Your task to perform on an android device: show emergency info Image 0: 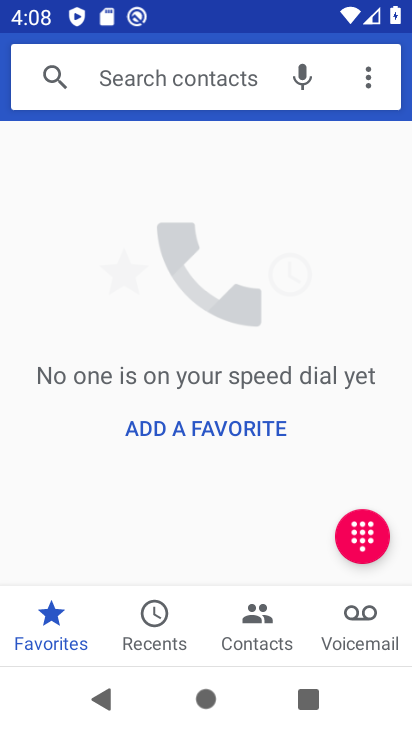
Step 0: press home button
Your task to perform on an android device: show emergency info Image 1: 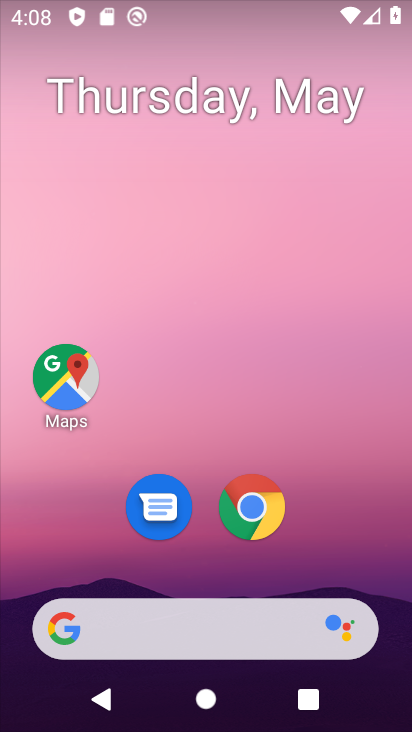
Step 1: drag from (217, 579) to (225, 68)
Your task to perform on an android device: show emergency info Image 2: 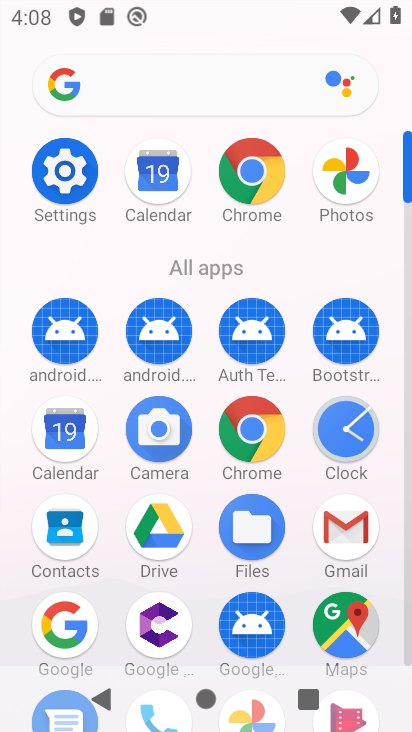
Step 2: click (64, 173)
Your task to perform on an android device: show emergency info Image 3: 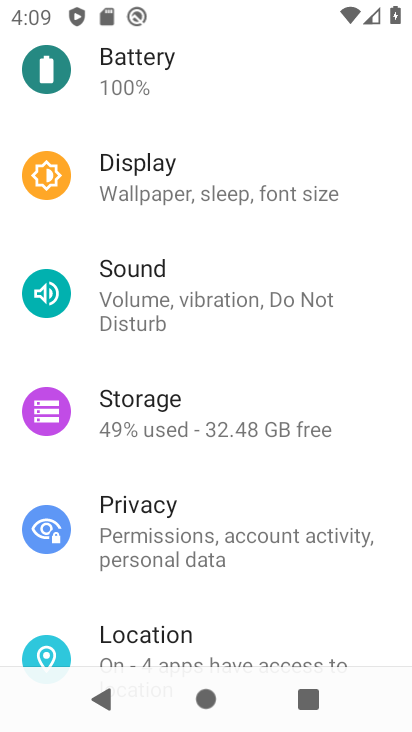
Step 3: drag from (224, 565) to (187, 235)
Your task to perform on an android device: show emergency info Image 4: 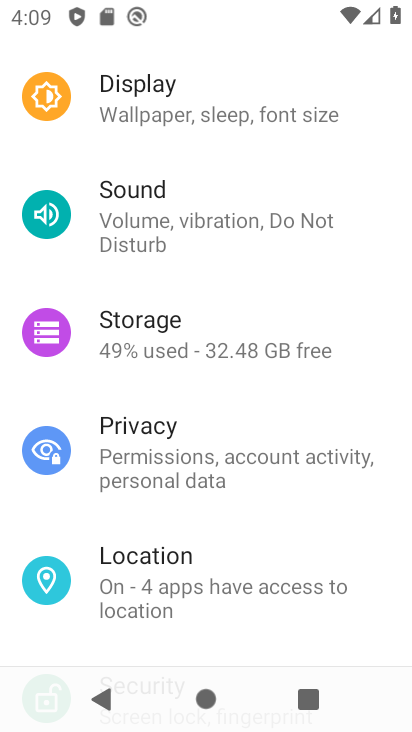
Step 4: drag from (198, 584) to (119, 350)
Your task to perform on an android device: show emergency info Image 5: 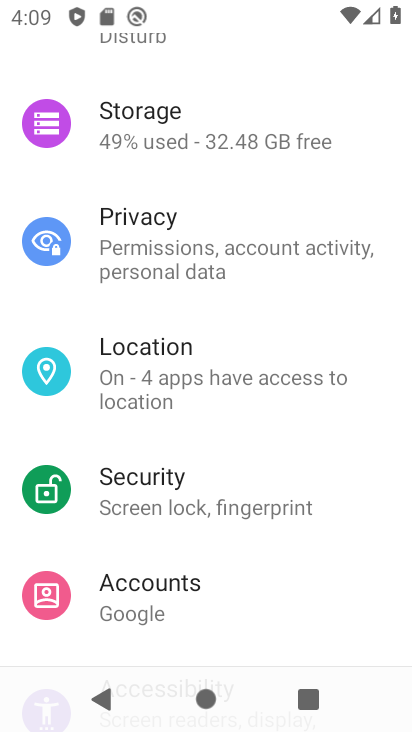
Step 5: drag from (170, 585) to (135, 328)
Your task to perform on an android device: show emergency info Image 6: 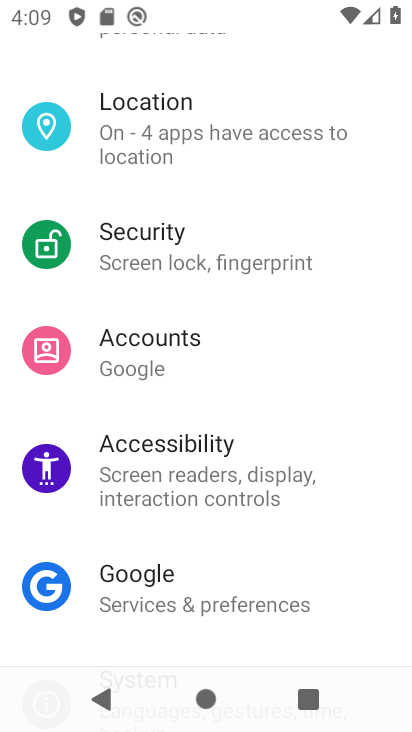
Step 6: drag from (207, 584) to (156, 330)
Your task to perform on an android device: show emergency info Image 7: 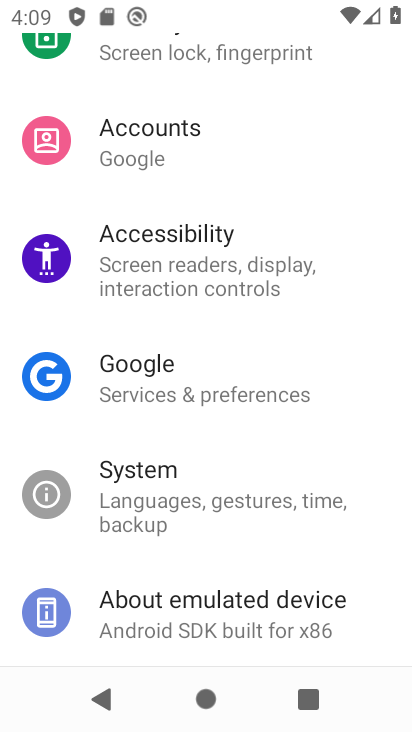
Step 7: click (188, 616)
Your task to perform on an android device: show emergency info Image 8: 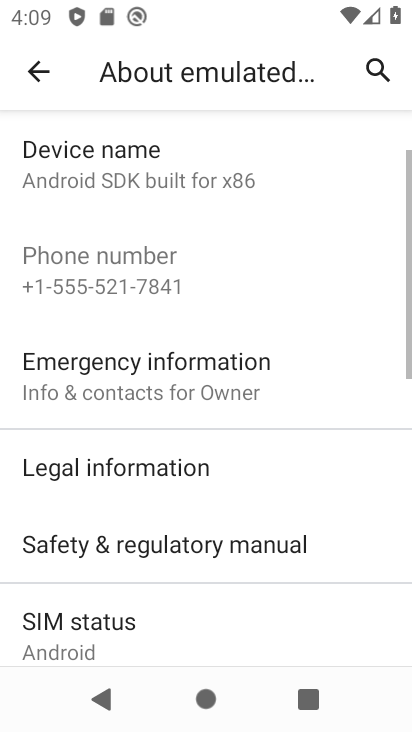
Step 8: drag from (142, 611) to (102, 397)
Your task to perform on an android device: show emergency info Image 9: 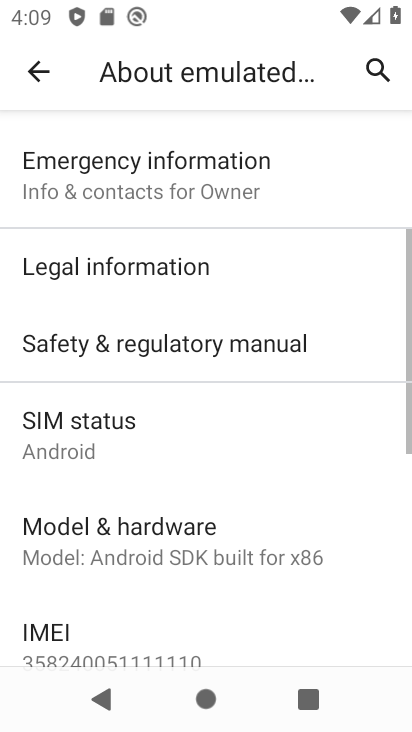
Step 9: click (126, 183)
Your task to perform on an android device: show emergency info Image 10: 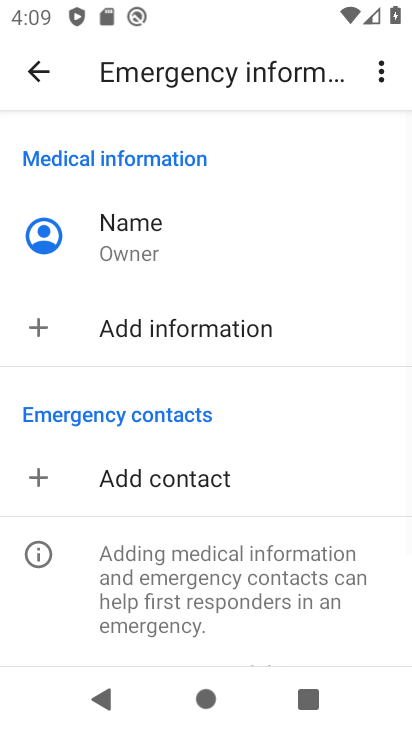
Step 10: task complete